Your task to perform on an android device: Turn on the flashlight Image 0: 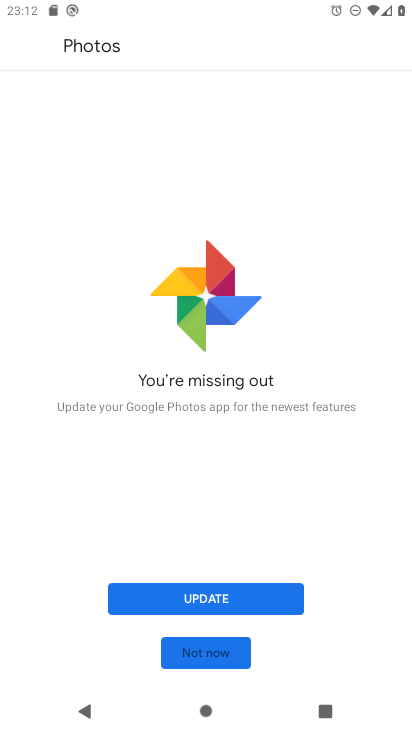
Step 0: press home button
Your task to perform on an android device: Turn on the flashlight Image 1: 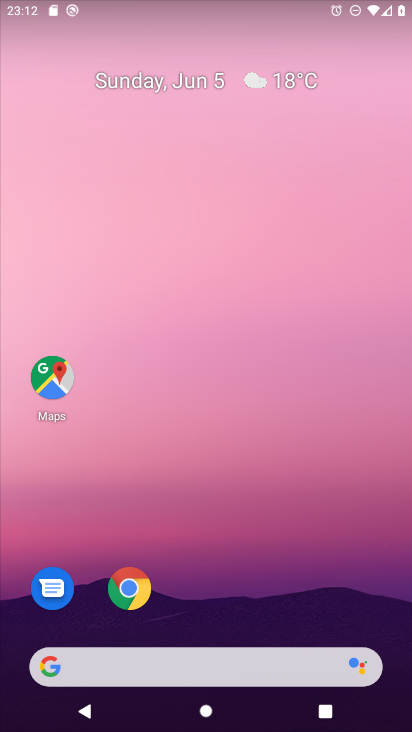
Step 1: drag from (285, 0) to (285, 434)
Your task to perform on an android device: Turn on the flashlight Image 2: 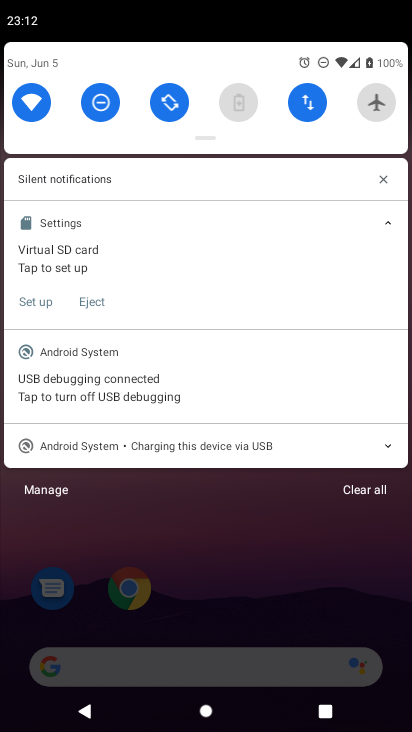
Step 2: drag from (192, 78) to (217, 358)
Your task to perform on an android device: Turn on the flashlight Image 3: 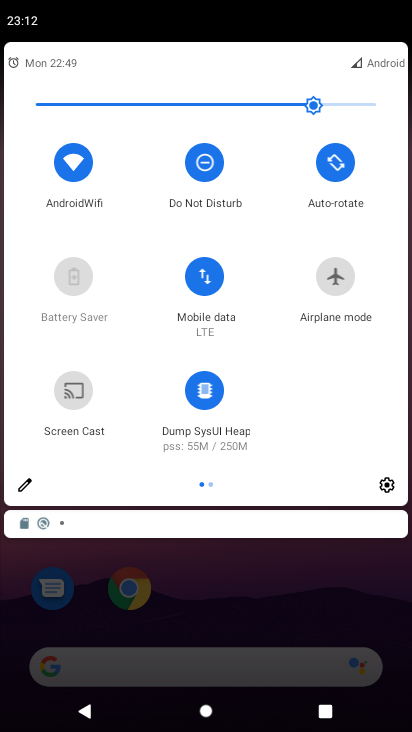
Step 3: click (31, 494)
Your task to perform on an android device: Turn on the flashlight Image 4: 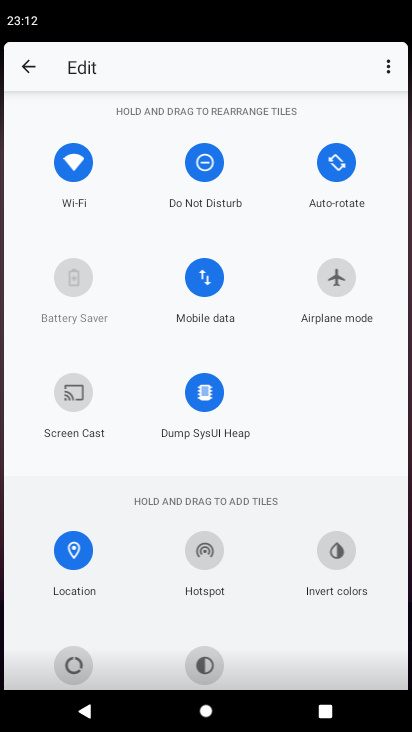
Step 4: task complete